Your task to perform on an android device: Is it going to rain tomorrow? Image 0: 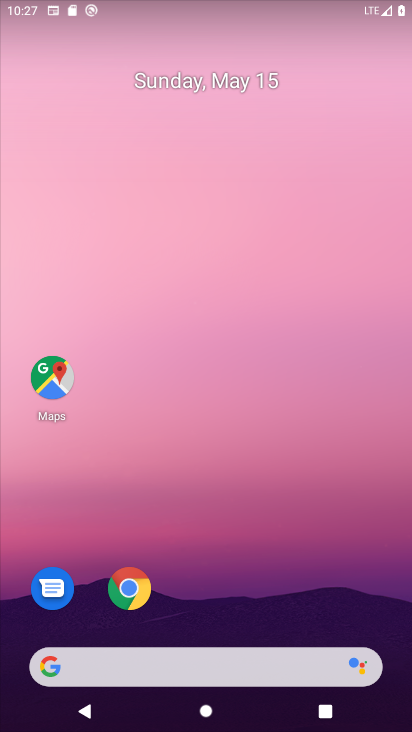
Step 0: click (196, 660)
Your task to perform on an android device: Is it going to rain tomorrow? Image 1: 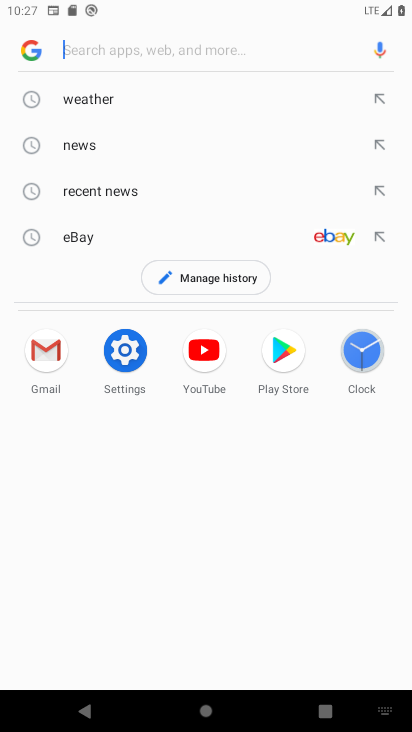
Step 1: click (108, 106)
Your task to perform on an android device: Is it going to rain tomorrow? Image 2: 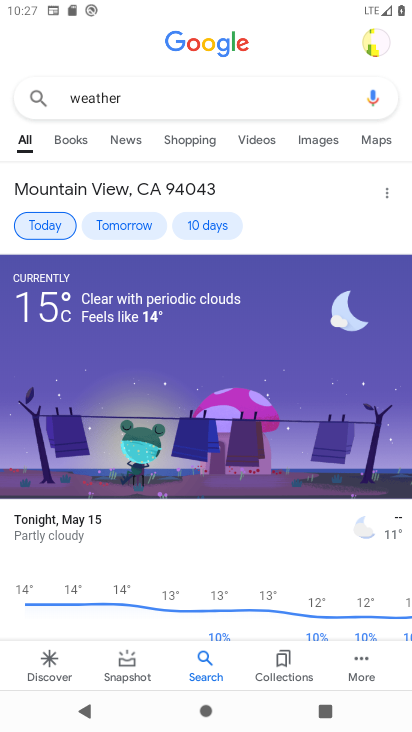
Step 2: click (120, 225)
Your task to perform on an android device: Is it going to rain tomorrow? Image 3: 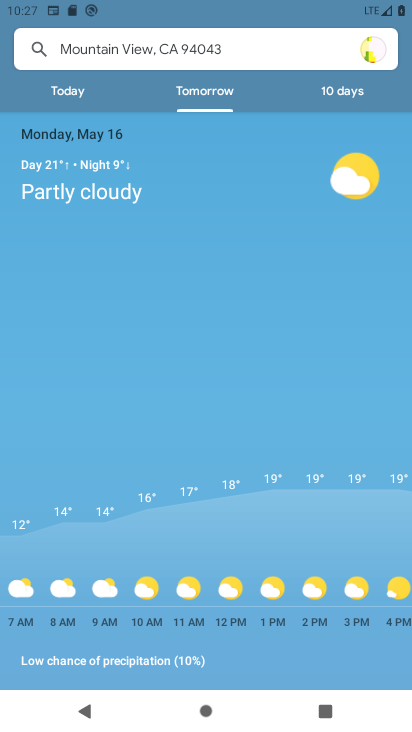
Step 3: task complete